Your task to perform on an android device: Go to location settings Image 0: 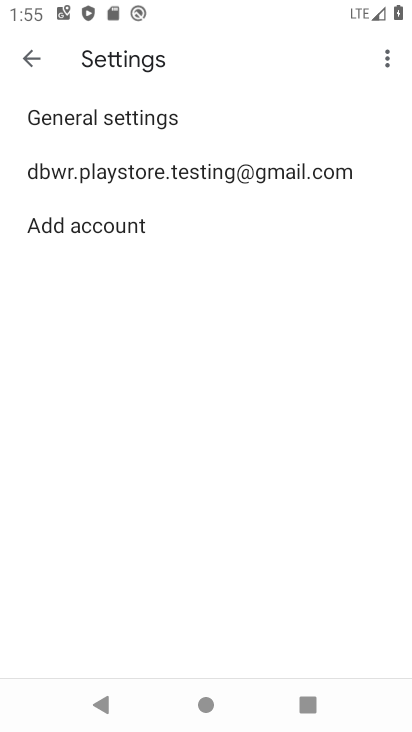
Step 0: press home button
Your task to perform on an android device: Go to location settings Image 1: 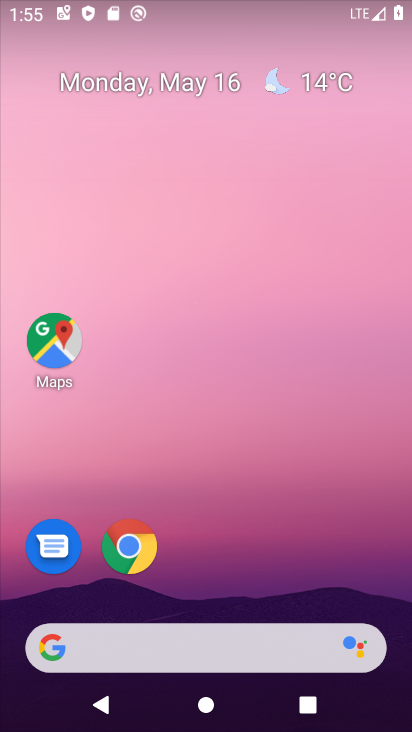
Step 1: drag from (266, 662) to (219, 138)
Your task to perform on an android device: Go to location settings Image 2: 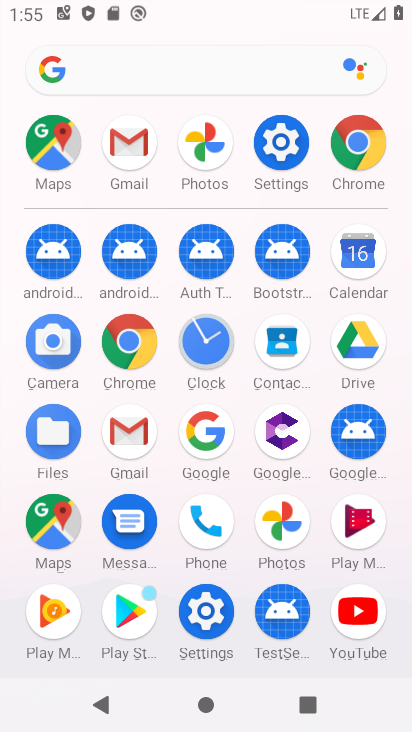
Step 2: click (280, 153)
Your task to perform on an android device: Go to location settings Image 3: 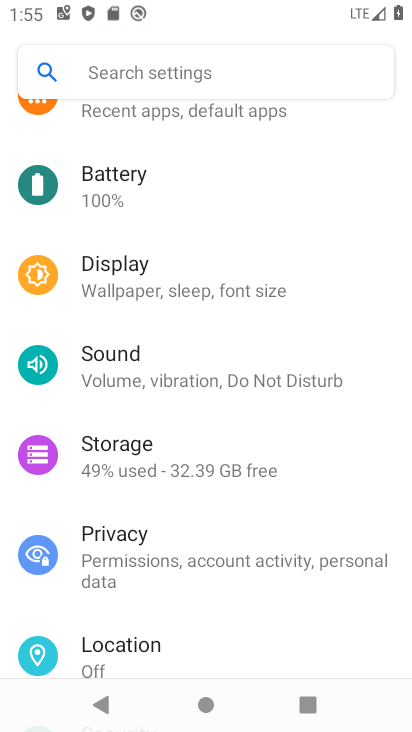
Step 3: click (155, 67)
Your task to perform on an android device: Go to location settings Image 4: 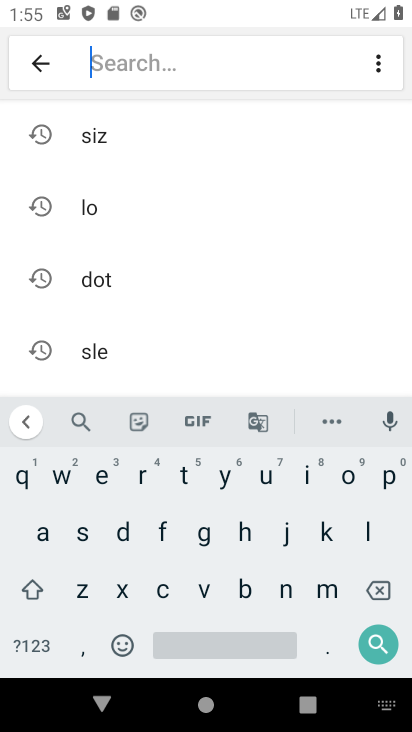
Step 4: click (93, 206)
Your task to perform on an android device: Go to location settings Image 5: 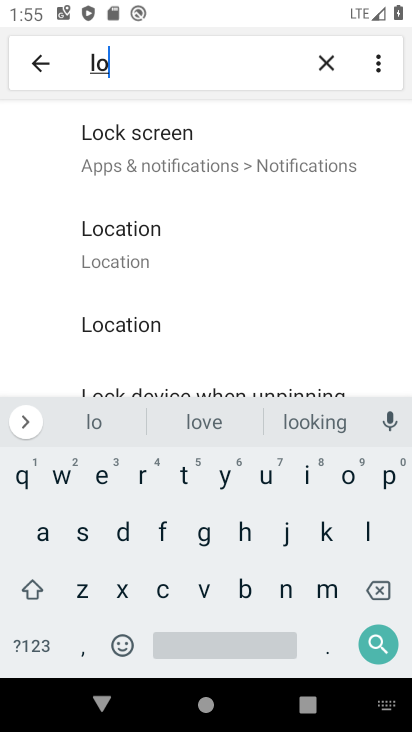
Step 5: click (124, 233)
Your task to perform on an android device: Go to location settings Image 6: 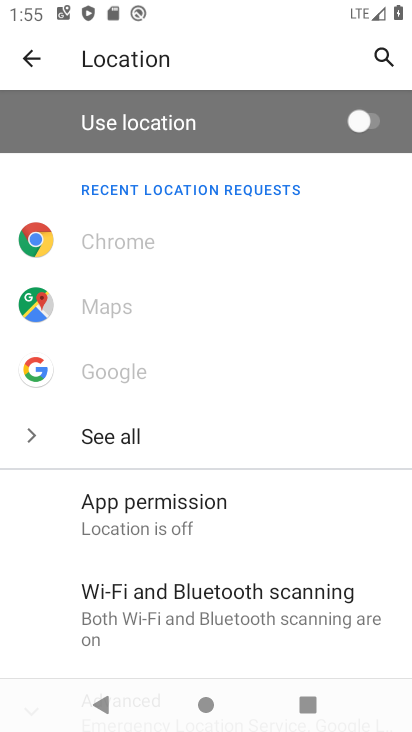
Step 6: drag from (160, 532) to (134, 329)
Your task to perform on an android device: Go to location settings Image 7: 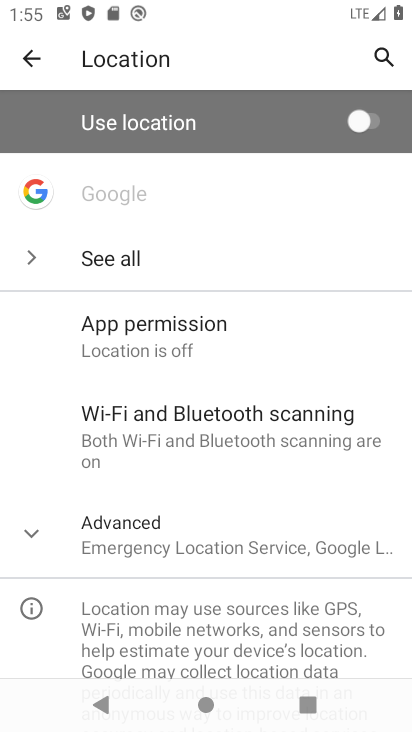
Step 7: click (132, 550)
Your task to perform on an android device: Go to location settings Image 8: 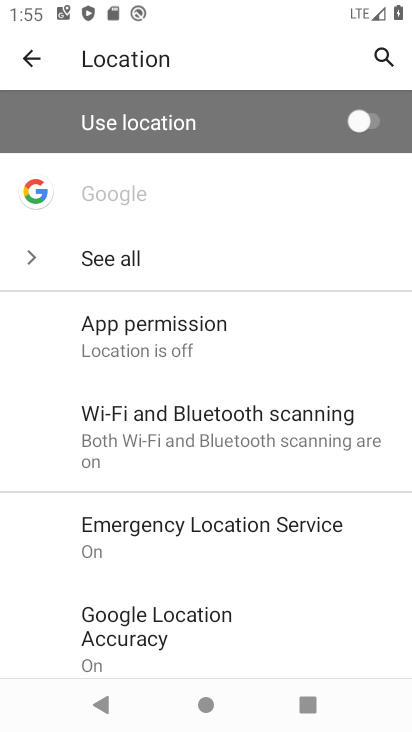
Step 8: click (202, 593)
Your task to perform on an android device: Go to location settings Image 9: 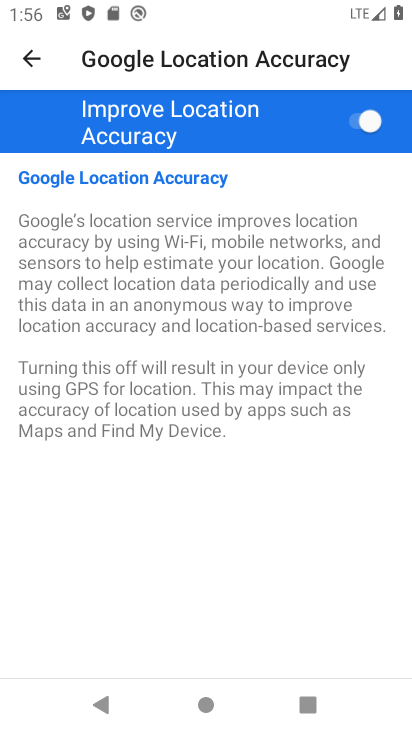
Step 9: click (202, 593)
Your task to perform on an android device: Go to location settings Image 10: 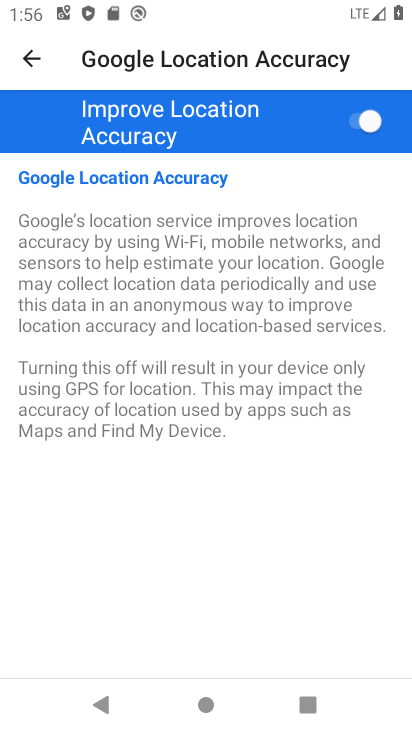
Step 10: task complete